Your task to perform on an android device: move a message to another label in the gmail app Image 0: 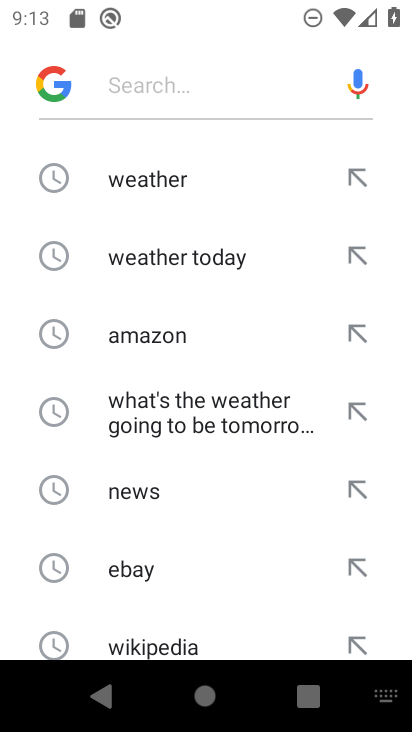
Step 0: press home button
Your task to perform on an android device: move a message to another label in the gmail app Image 1: 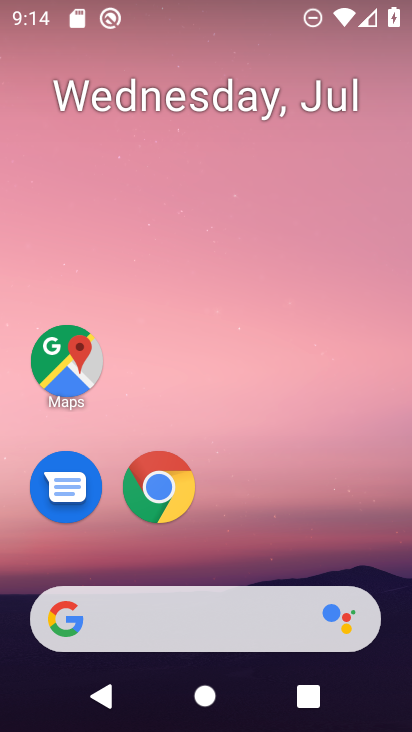
Step 1: drag from (377, 503) to (409, 548)
Your task to perform on an android device: move a message to another label in the gmail app Image 2: 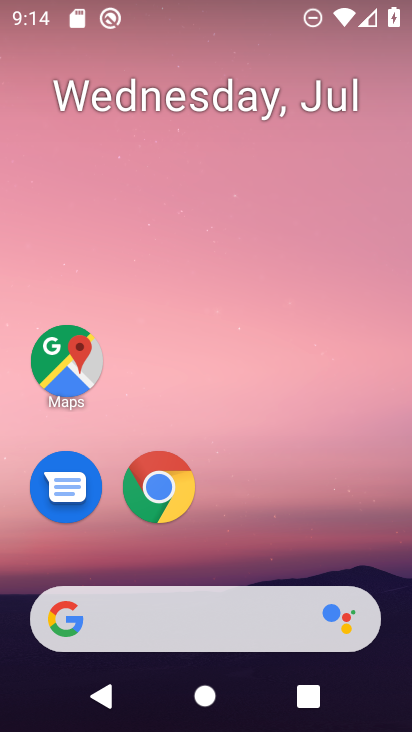
Step 2: click (359, 528)
Your task to perform on an android device: move a message to another label in the gmail app Image 3: 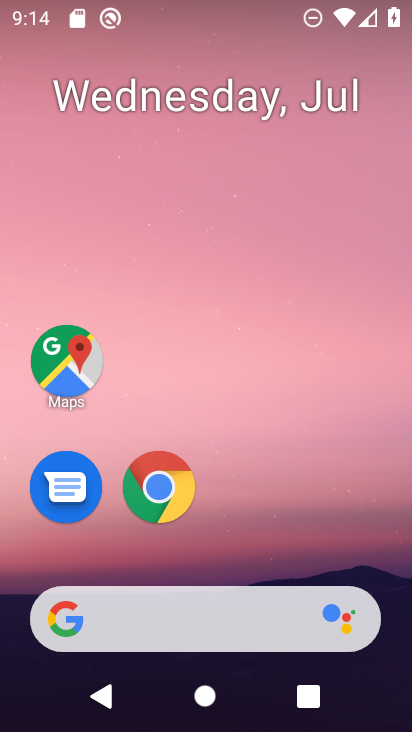
Step 3: drag from (357, 518) to (399, 59)
Your task to perform on an android device: move a message to another label in the gmail app Image 4: 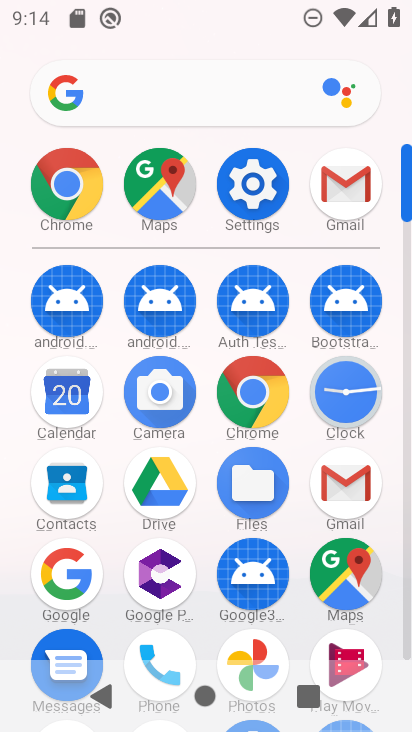
Step 4: click (351, 186)
Your task to perform on an android device: move a message to another label in the gmail app Image 5: 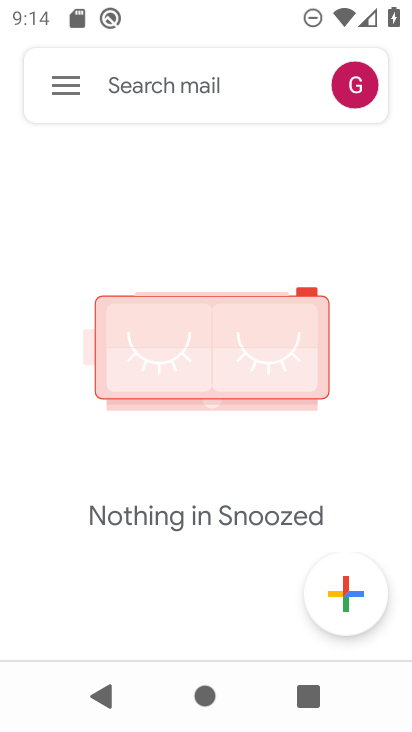
Step 5: click (70, 82)
Your task to perform on an android device: move a message to another label in the gmail app Image 6: 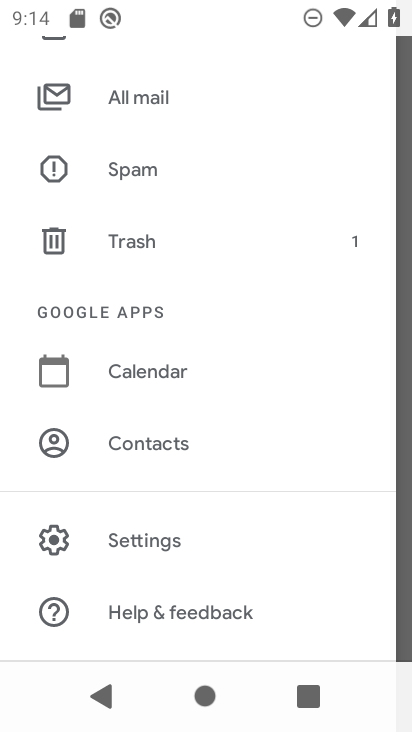
Step 6: drag from (218, 169) to (233, 241)
Your task to perform on an android device: move a message to another label in the gmail app Image 7: 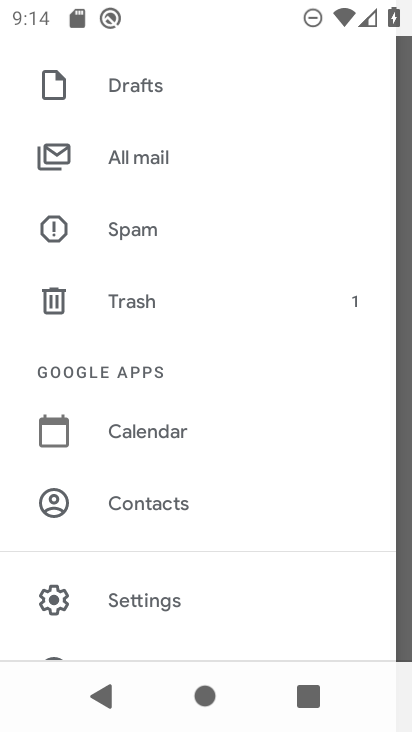
Step 7: drag from (252, 164) to (268, 315)
Your task to perform on an android device: move a message to another label in the gmail app Image 8: 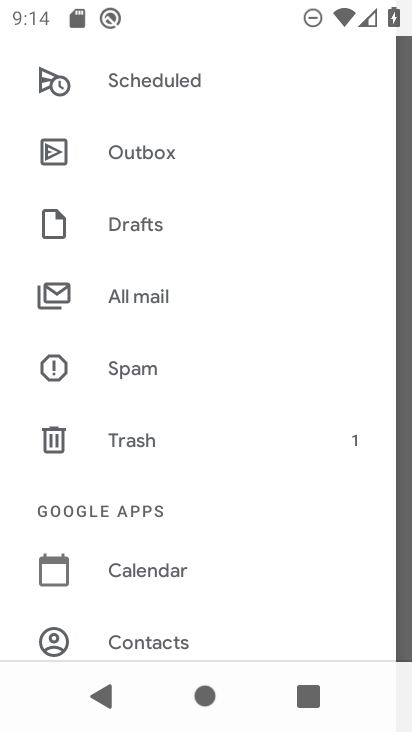
Step 8: drag from (251, 145) to (254, 259)
Your task to perform on an android device: move a message to another label in the gmail app Image 9: 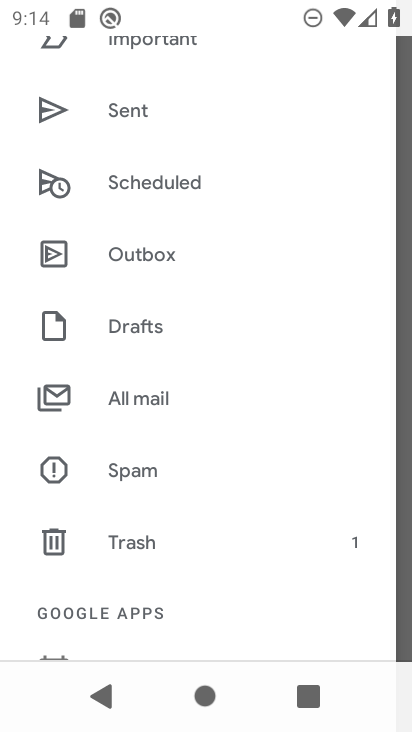
Step 9: click (147, 403)
Your task to perform on an android device: move a message to another label in the gmail app Image 10: 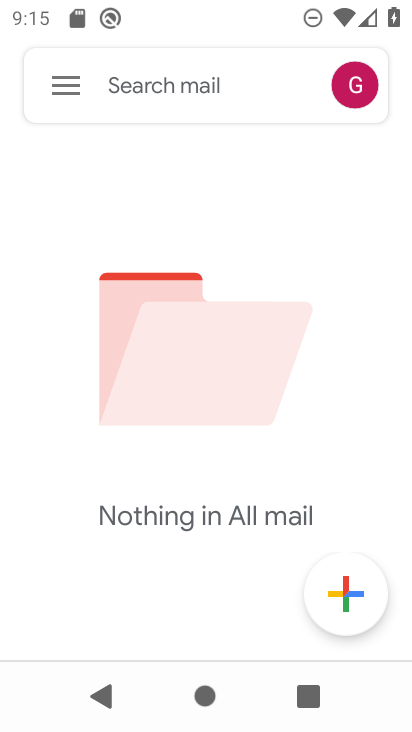
Step 10: task complete